Your task to perform on an android device: Is it going to rain this weekend? Image 0: 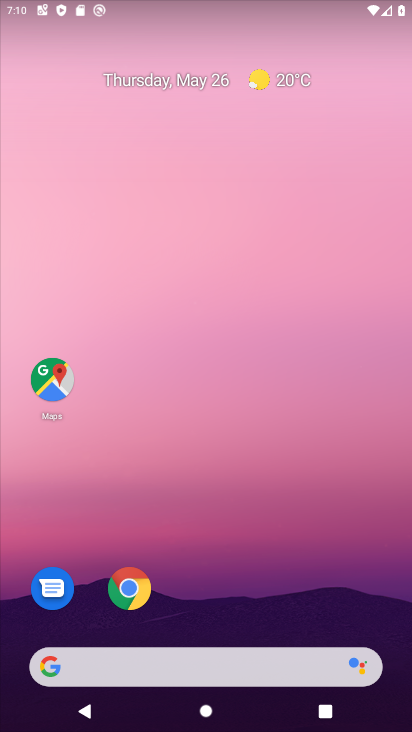
Step 0: drag from (371, 606) to (273, 24)
Your task to perform on an android device: Is it going to rain this weekend? Image 1: 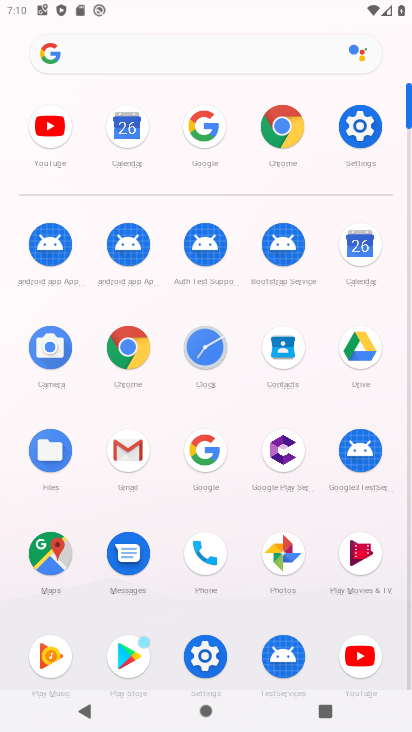
Step 1: click (197, 449)
Your task to perform on an android device: Is it going to rain this weekend? Image 2: 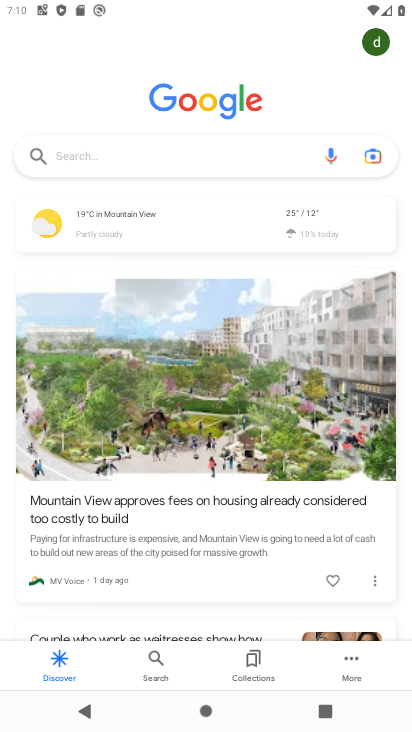
Step 2: click (159, 161)
Your task to perform on an android device: Is it going to rain this weekend? Image 3: 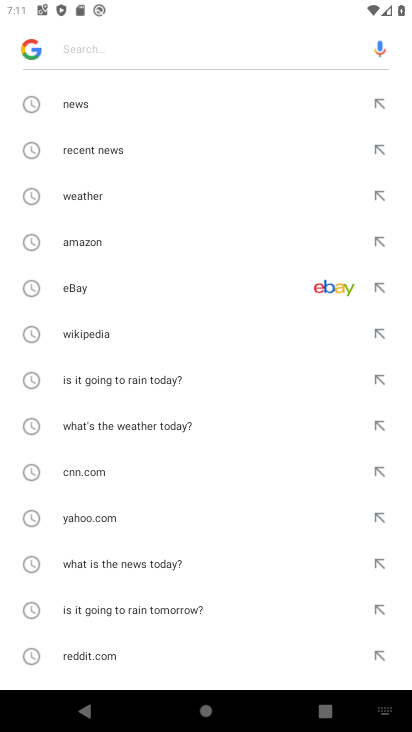
Step 3: drag from (188, 569) to (233, 282)
Your task to perform on an android device: Is it going to rain this weekend? Image 4: 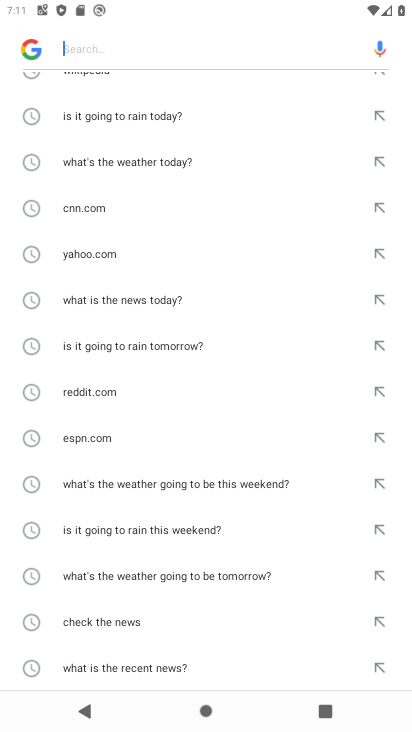
Step 4: click (215, 522)
Your task to perform on an android device: Is it going to rain this weekend? Image 5: 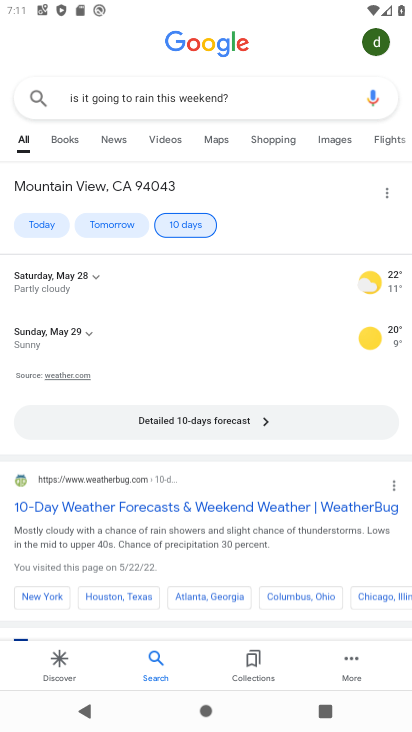
Step 5: task complete